Your task to perform on an android device: open a bookmark in the chrome app Image 0: 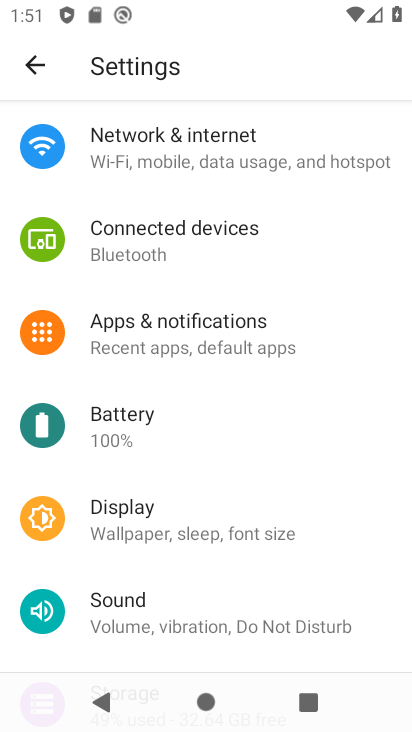
Step 0: press home button
Your task to perform on an android device: open a bookmark in the chrome app Image 1: 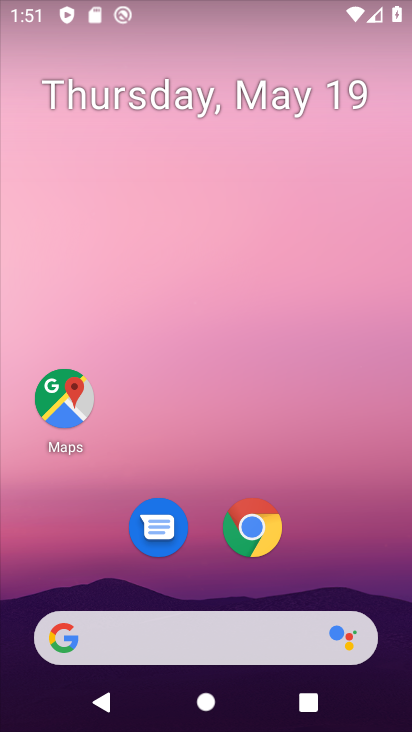
Step 1: click (259, 540)
Your task to perform on an android device: open a bookmark in the chrome app Image 2: 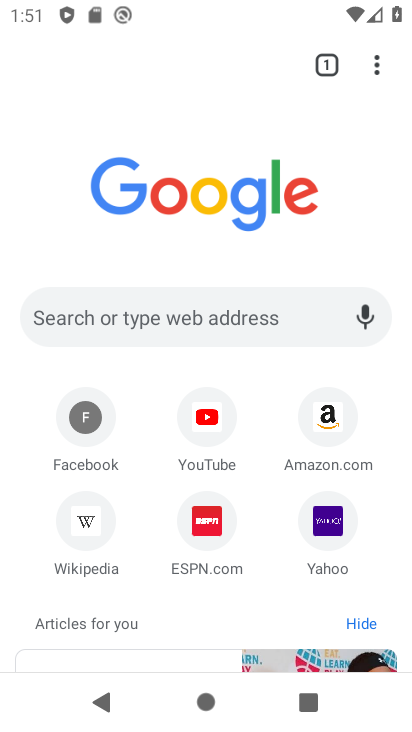
Step 2: click (378, 64)
Your task to perform on an android device: open a bookmark in the chrome app Image 3: 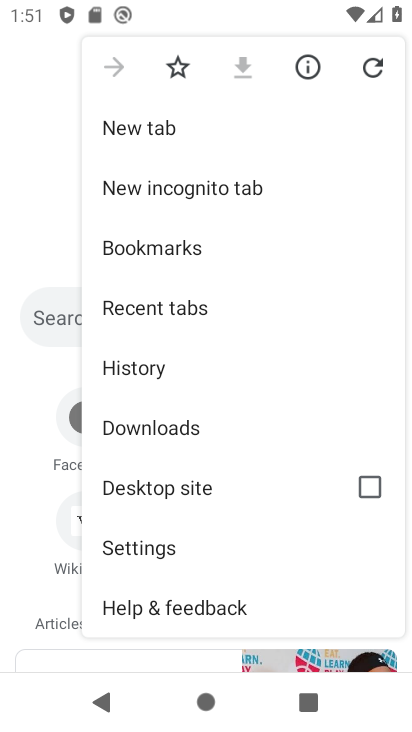
Step 3: click (209, 245)
Your task to perform on an android device: open a bookmark in the chrome app Image 4: 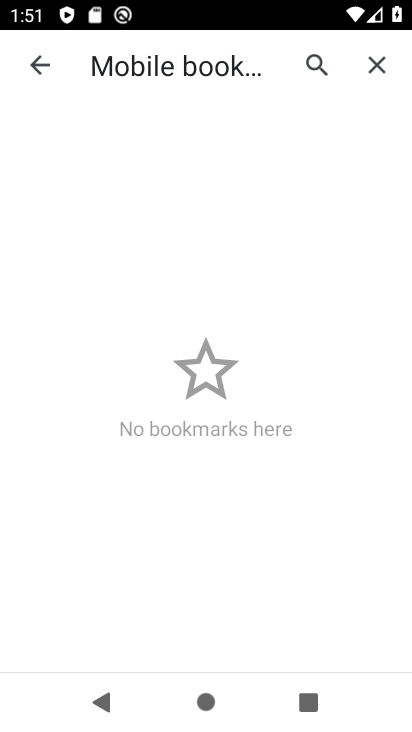
Step 4: task complete